Your task to perform on an android device: turn on data saver in the chrome app Image 0: 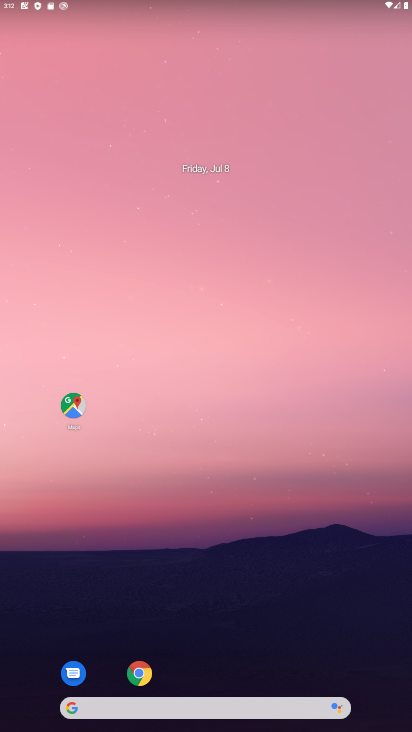
Step 0: drag from (202, 658) to (217, 0)
Your task to perform on an android device: turn on data saver in the chrome app Image 1: 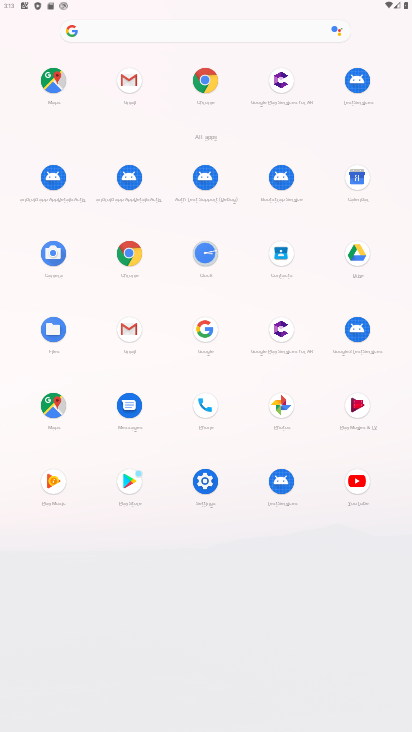
Step 1: click (125, 248)
Your task to perform on an android device: turn on data saver in the chrome app Image 2: 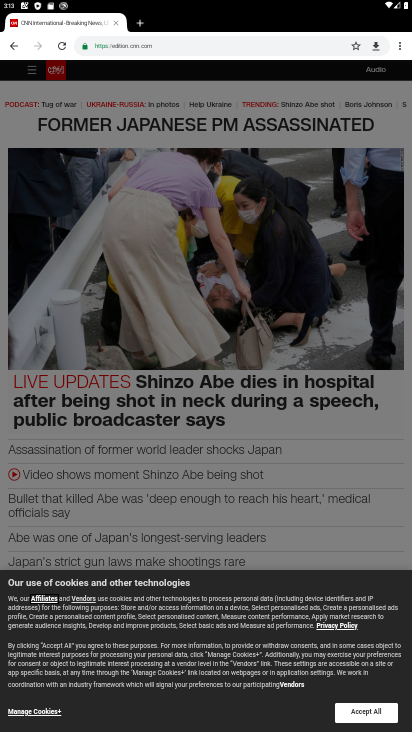
Step 2: click (401, 44)
Your task to perform on an android device: turn on data saver in the chrome app Image 3: 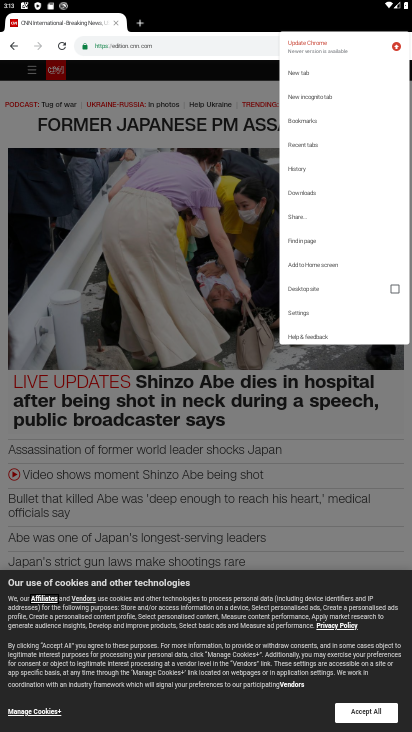
Step 3: click (310, 315)
Your task to perform on an android device: turn on data saver in the chrome app Image 4: 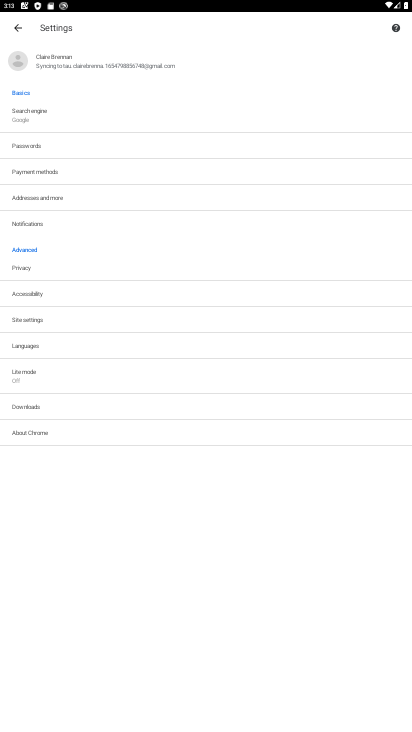
Step 4: click (51, 380)
Your task to perform on an android device: turn on data saver in the chrome app Image 5: 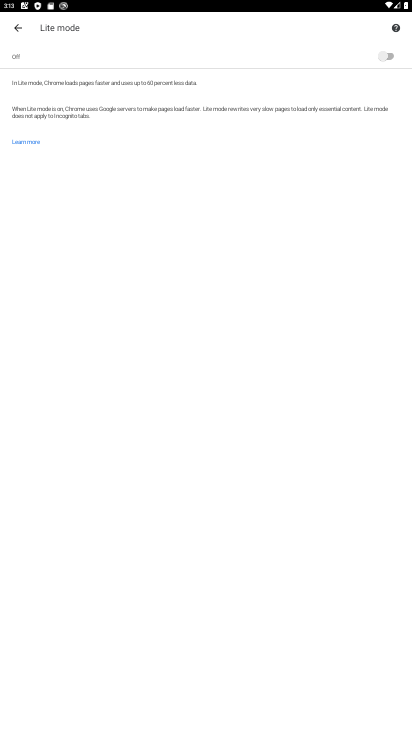
Step 5: click (376, 54)
Your task to perform on an android device: turn on data saver in the chrome app Image 6: 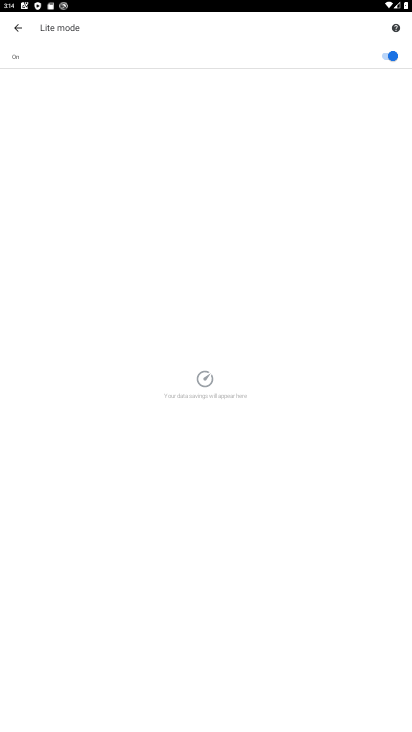
Step 6: task complete